Your task to perform on an android device: uninstall "WhatsApp Messenger" Image 0: 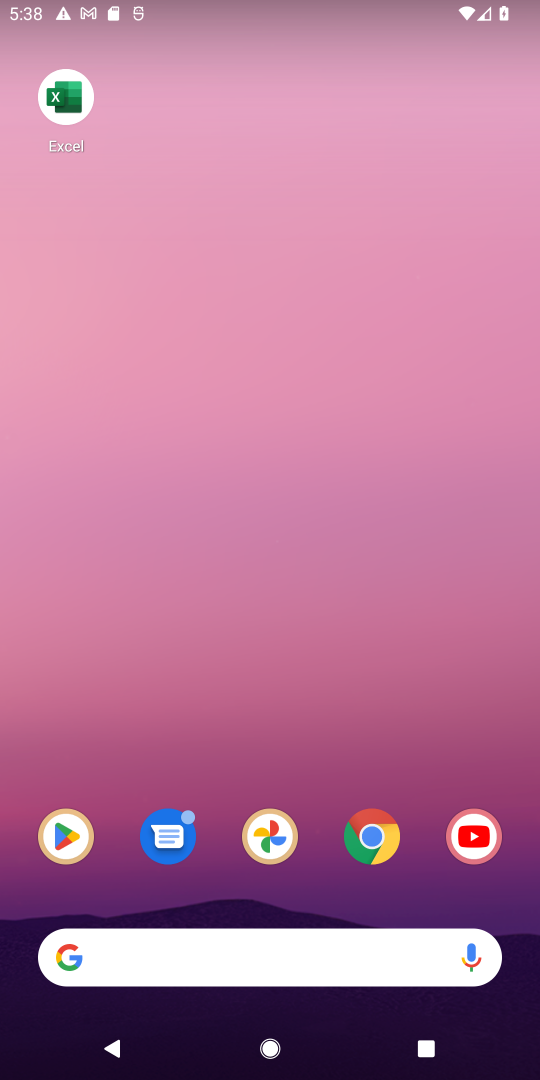
Step 0: press home button
Your task to perform on an android device: uninstall "WhatsApp Messenger" Image 1: 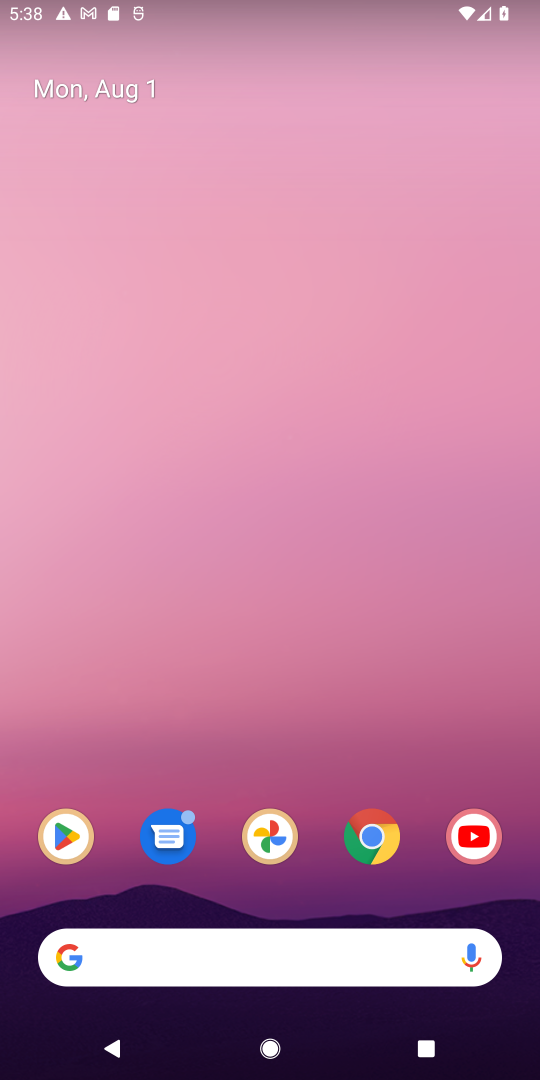
Step 1: click (65, 836)
Your task to perform on an android device: uninstall "WhatsApp Messenger" Image 2: 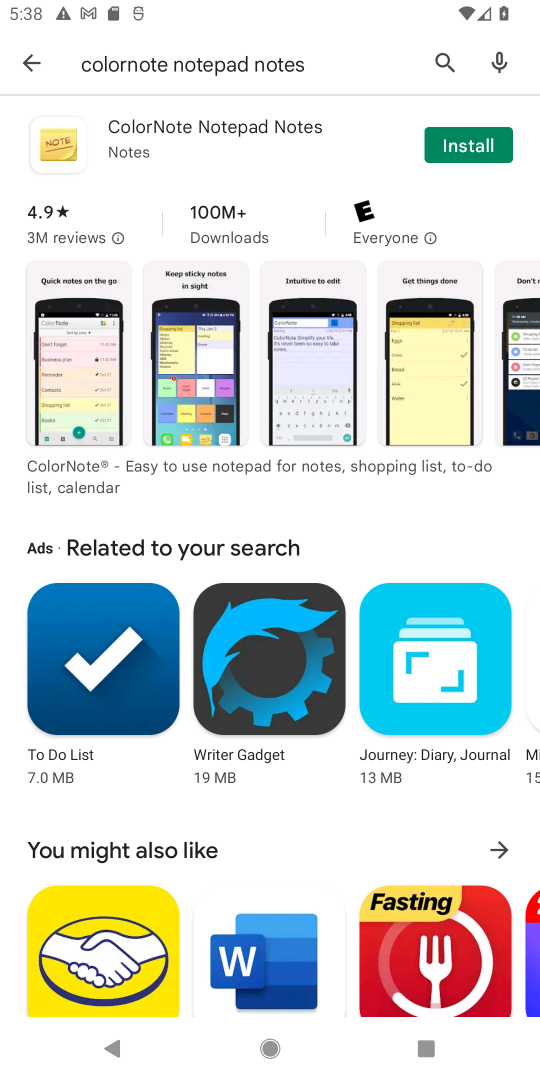
Step 2: click (443, 60)
Your task to perform on an android device: uninstall "WhatsApp Messenger" Image 3: 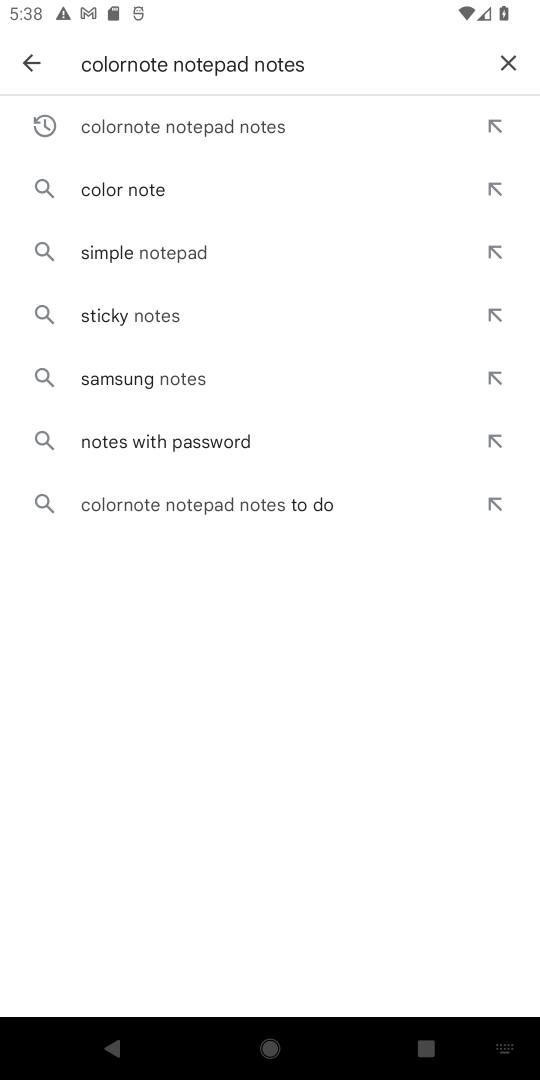
Step 3: click (507, 51)
Your task to perform on an android device: uninstall "WhatsApp Messenger" Image 4: 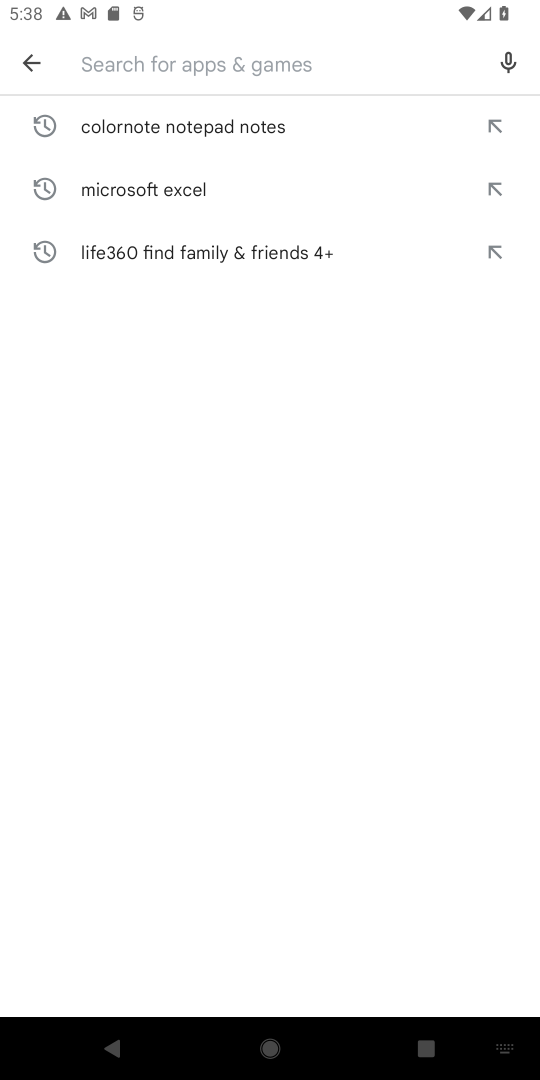
Step 4: type "WhatsApp Messenger"
Your task to perform on an android device: uninstall "WhatsApp Messenger" Image 5: 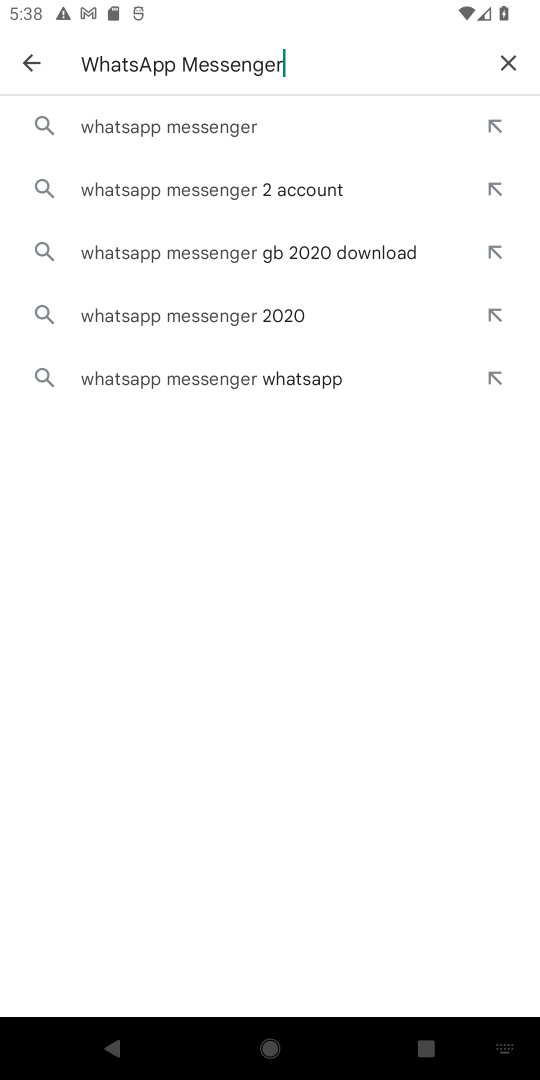
Step 5: click (175, 131)
Your task to perform on an android device: uninstall "WhatsApp Messenger" Image 6: 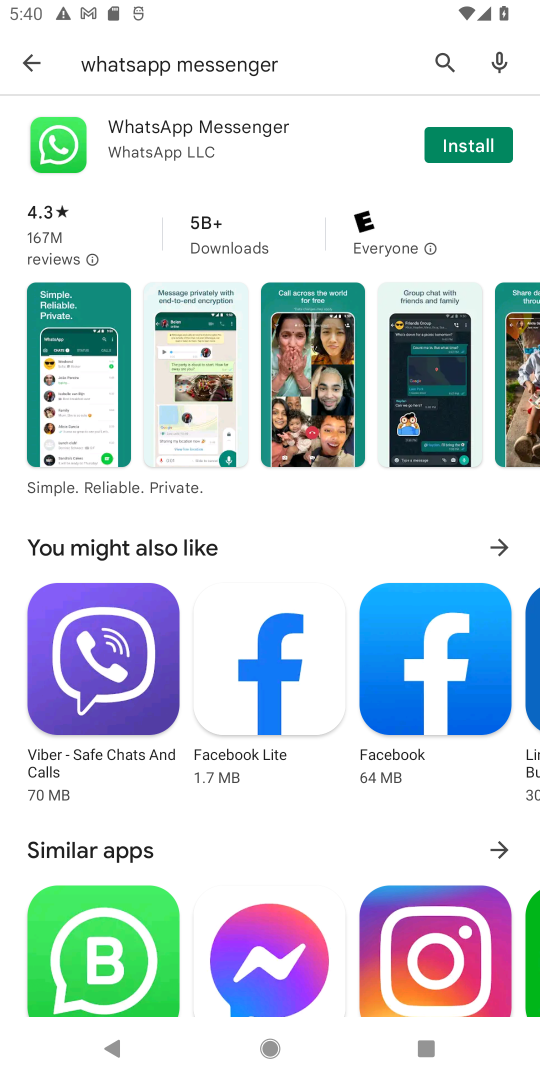
Step 6: task complete